Your task to perform on an android device: open wifi settings Image 0: 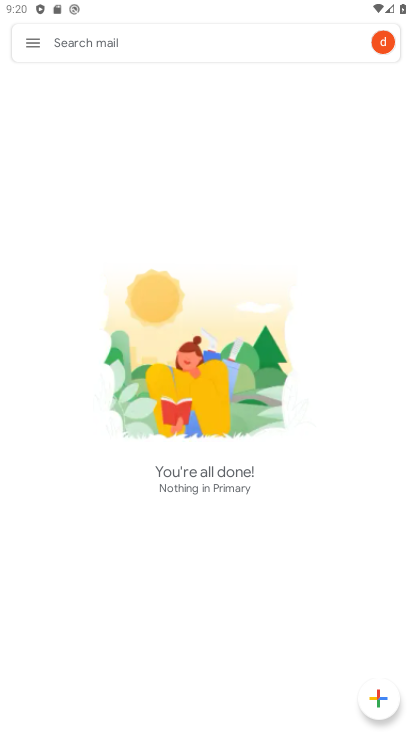
Step 0: press home button
Your task to perform on an android device: open wifi settings Image 1: 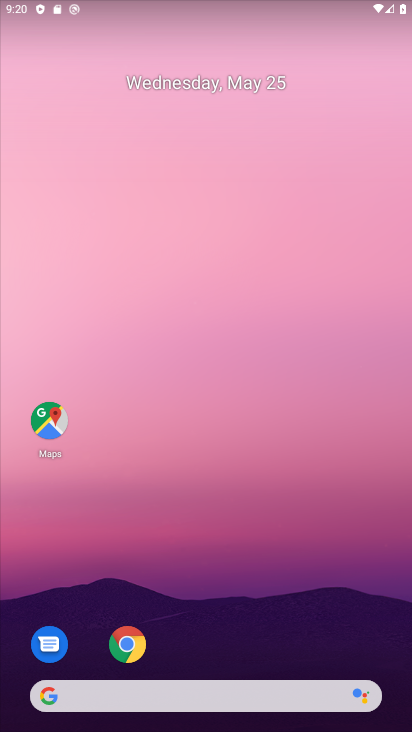
Step 1: drag from (246, 662) to (238, 0)
Your task to perform on an android device: open wifi settings Image 2: 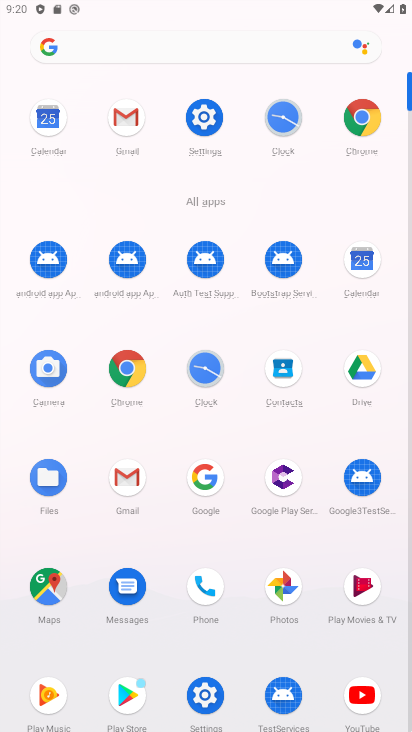
Step 2: click (200, 117)
Your task to perform on an android device: open wifi settings Image 3: 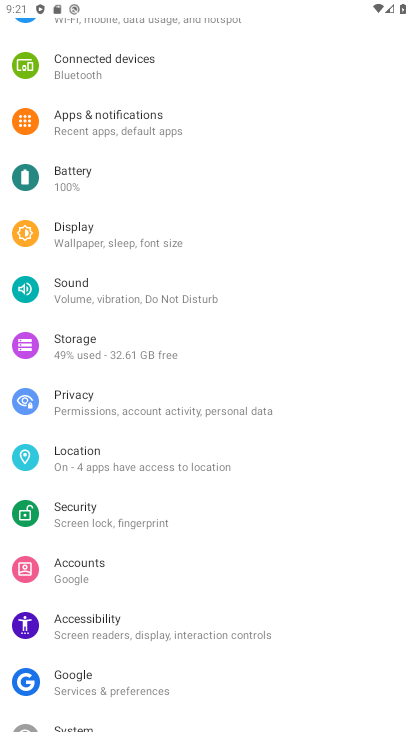
Step 3: drag from (232, 136) to (232, 495)
Your task to perform on an android device: open wifi settings Image 4: 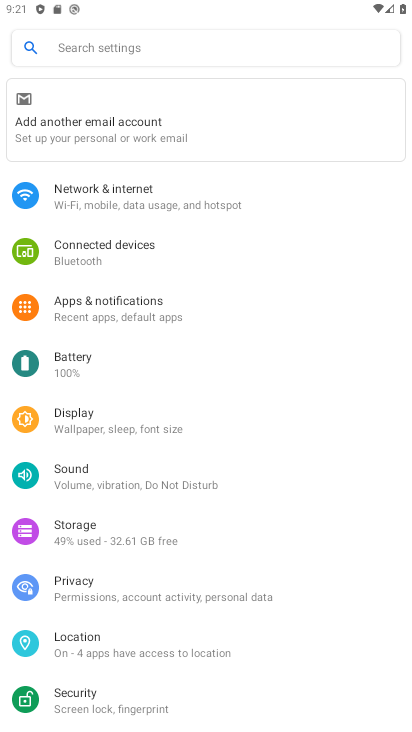
Step 4: click (133, 207)
Your task to perform on an android device: open wifi settings Image 5: 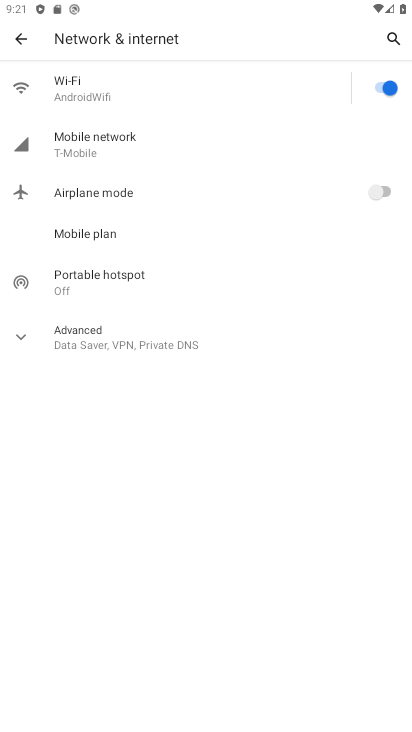
Step 5: click (65, 96)
Your task to perform on an android device: open wifi settings Image 6: 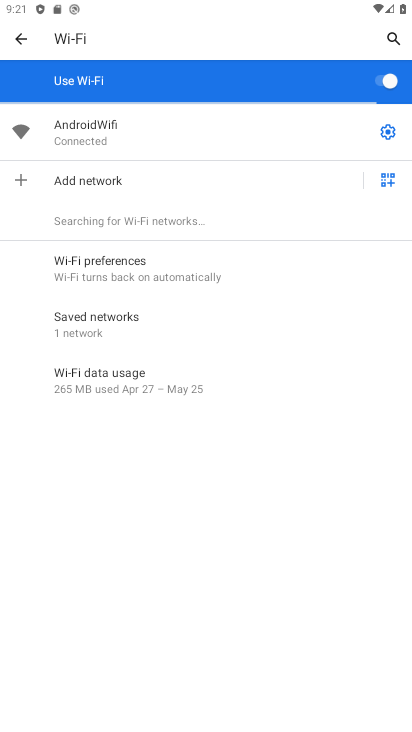
Step 6: task complete